Your task to perform on an android device: Set an alarm for 12pm Image 0: 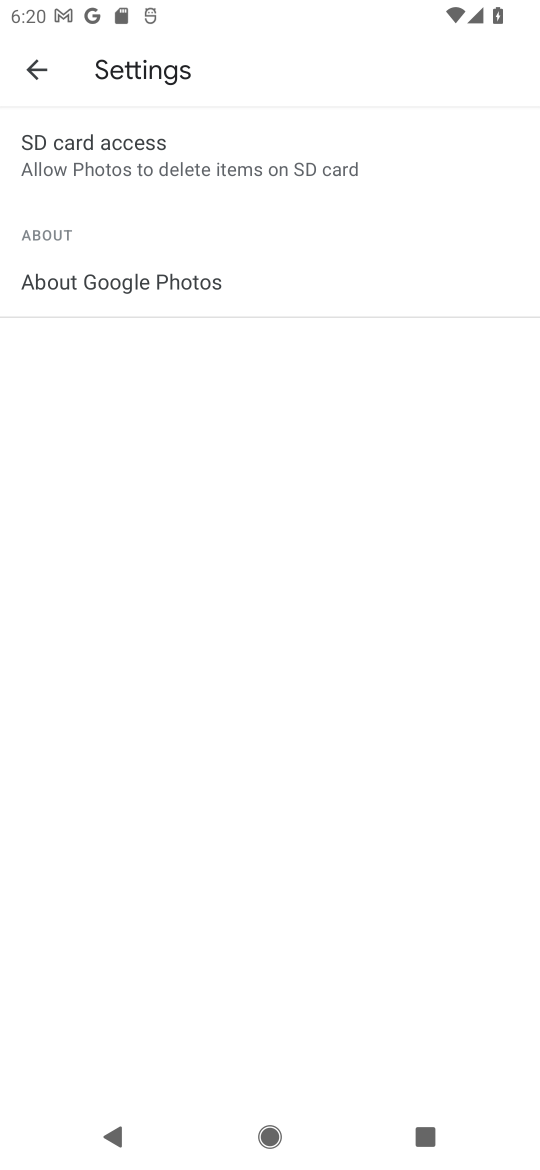
Step 0: press home button
Your task to perform on an android device: Set an alarm for 12pm Image 1: 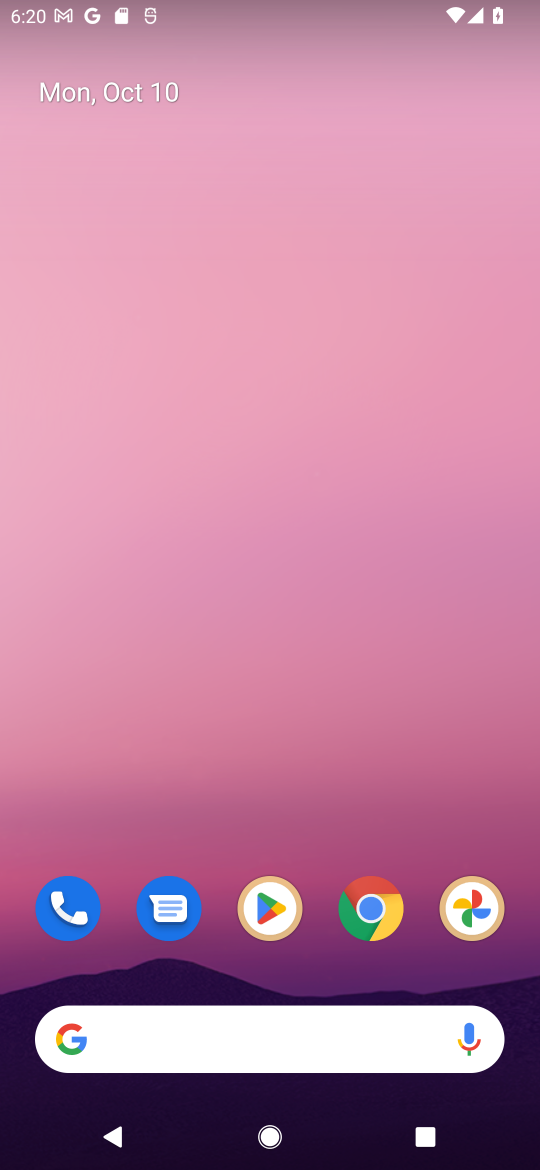
Step 1: drag from (316, 849) to (220, 12)
Your task to perform on an android device: Set an alarm for 12pm Image 2: 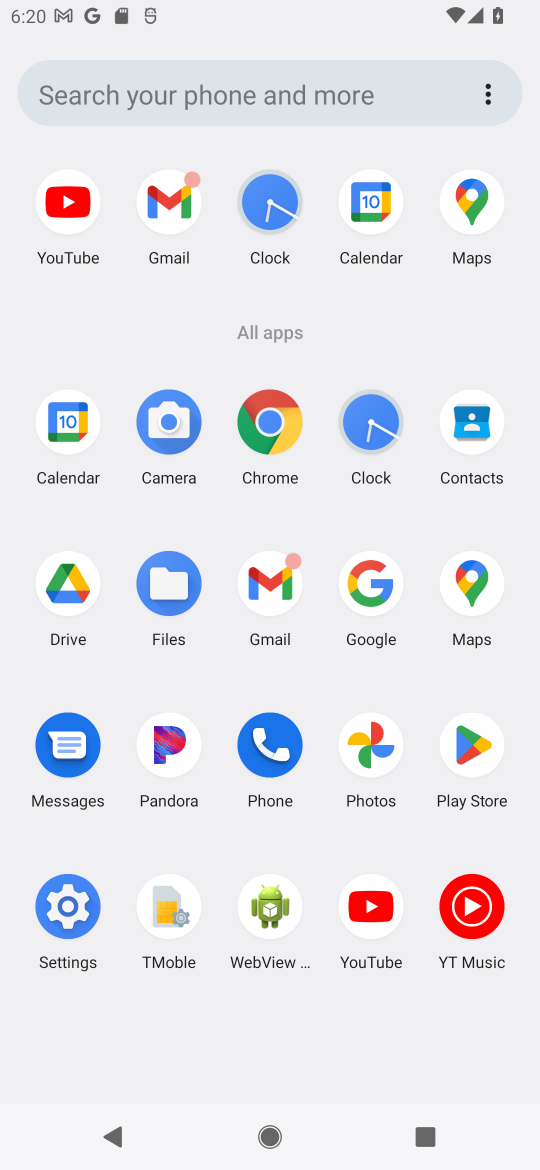
Step 2: click (363, 424)
Your task to perform on an android device: Set an alarm for 12pm Image 3: 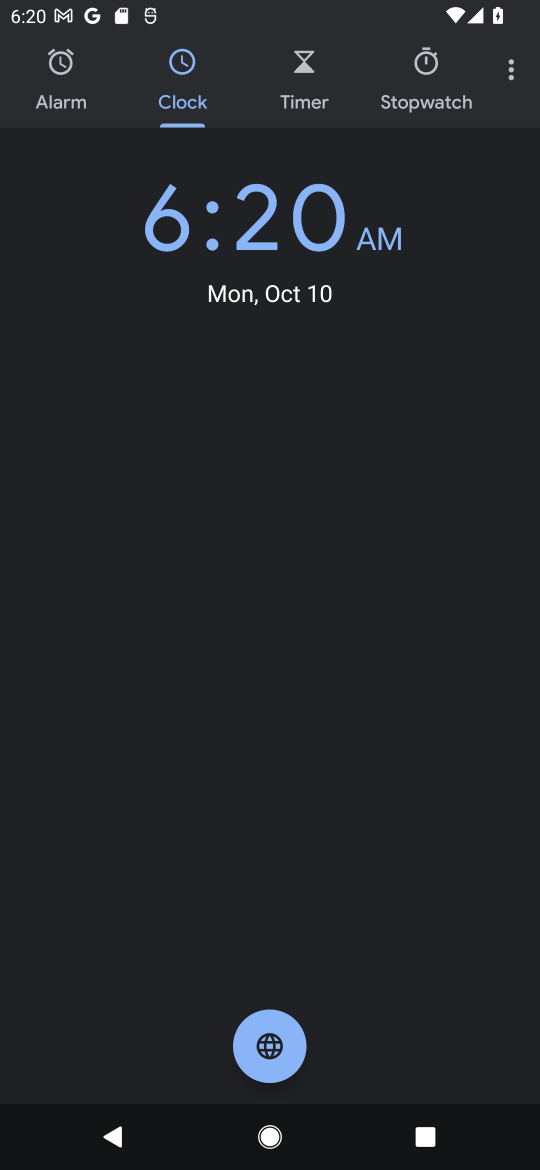
Step 3: click (78, 95)
Your task to perform on an android device: Set an alarm for 12pm Image 4: 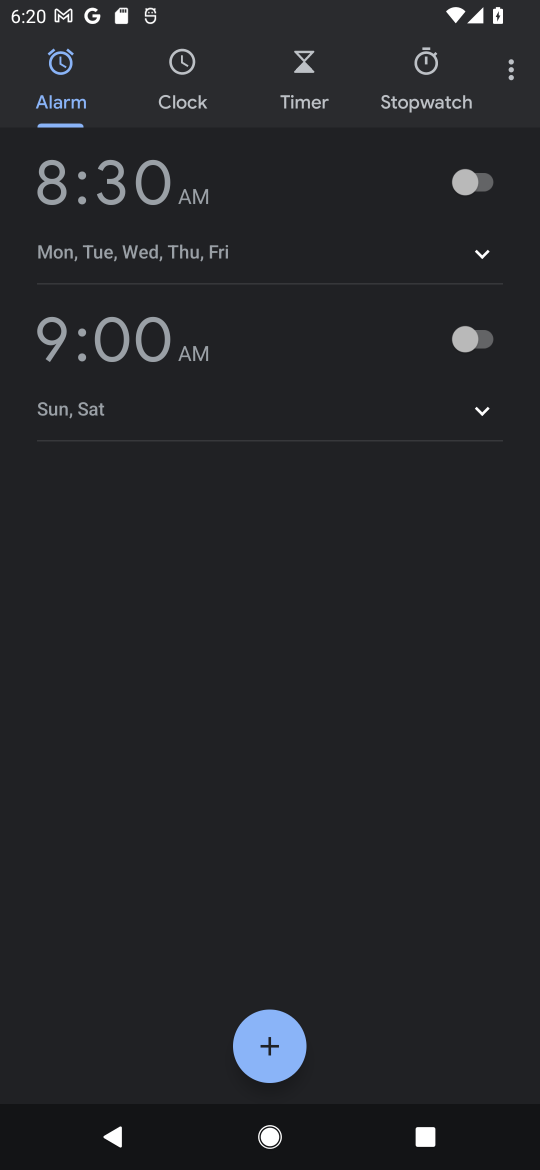
Step 4: click (252, 1060)
Your task to perform on an android device: Set an alarm for 12pm Image 5: 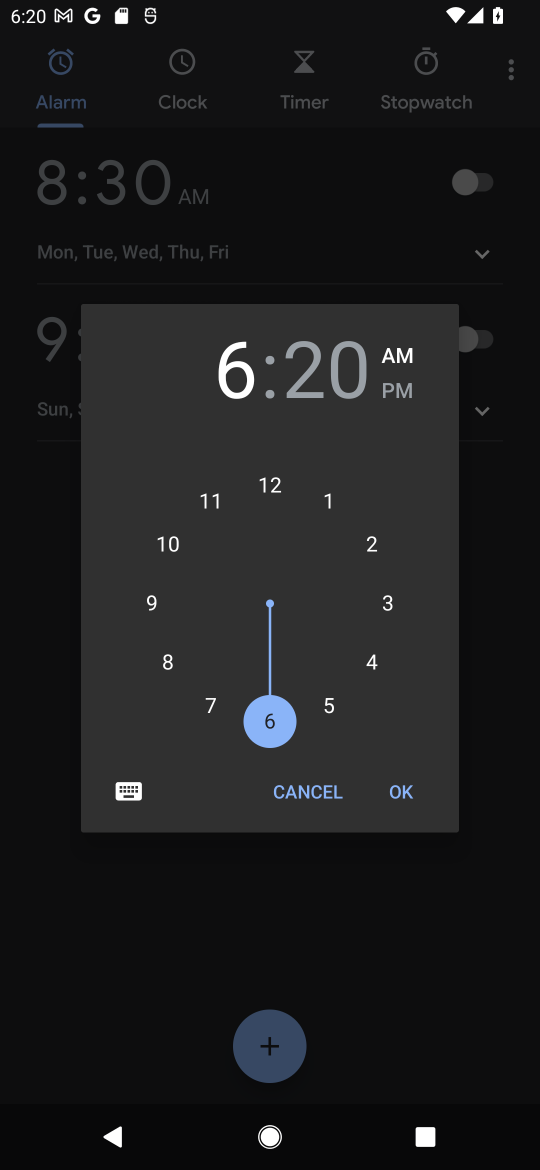
Step 5: click (276, 483)
Your task to perform on an android device: Set an alarm for 12pm Image 6: 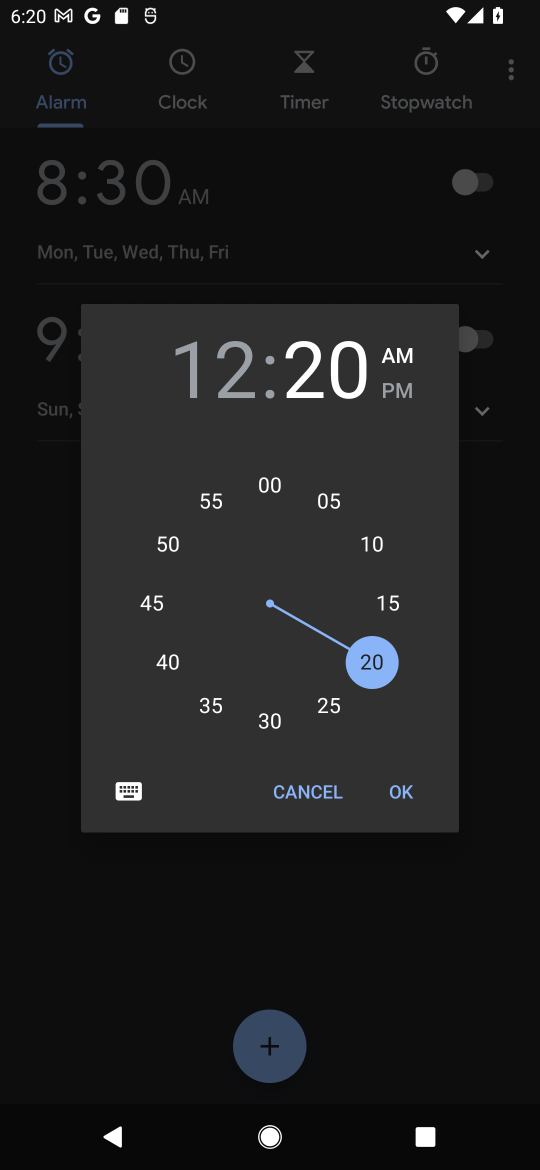
Step 6: click (352, 388)
Your task to perform on an android device: Set an alarm for 12pm Image 7: 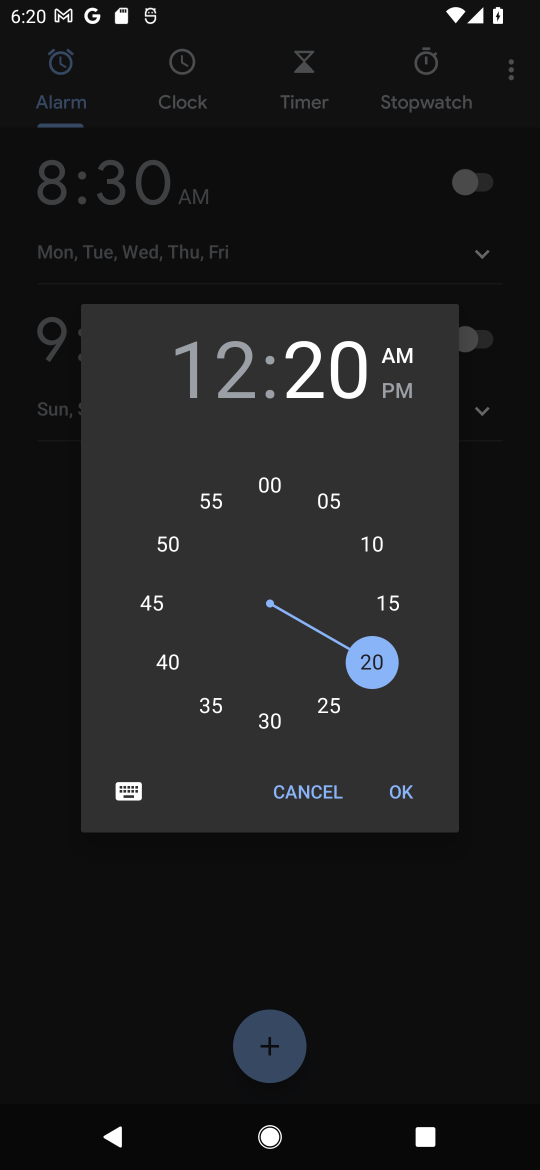
Step 7: click (279, 502)
Your task to perform on an android device: Set an alarm for 12pm Image 8: 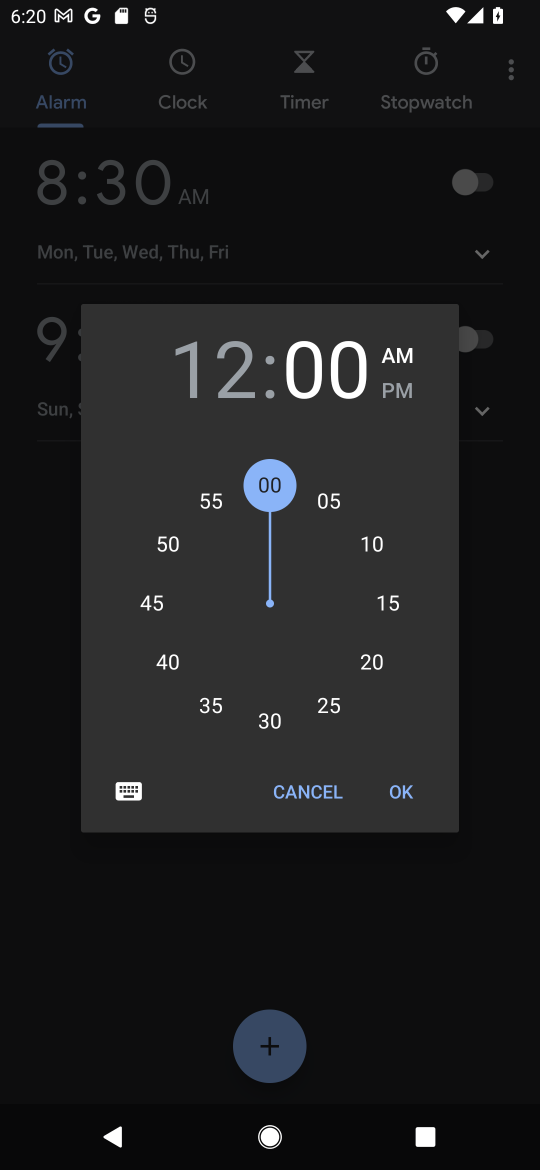
Step 8: click (405, 378)
Your task to perform on an android device: Set an alarm for 12pm Image 9: 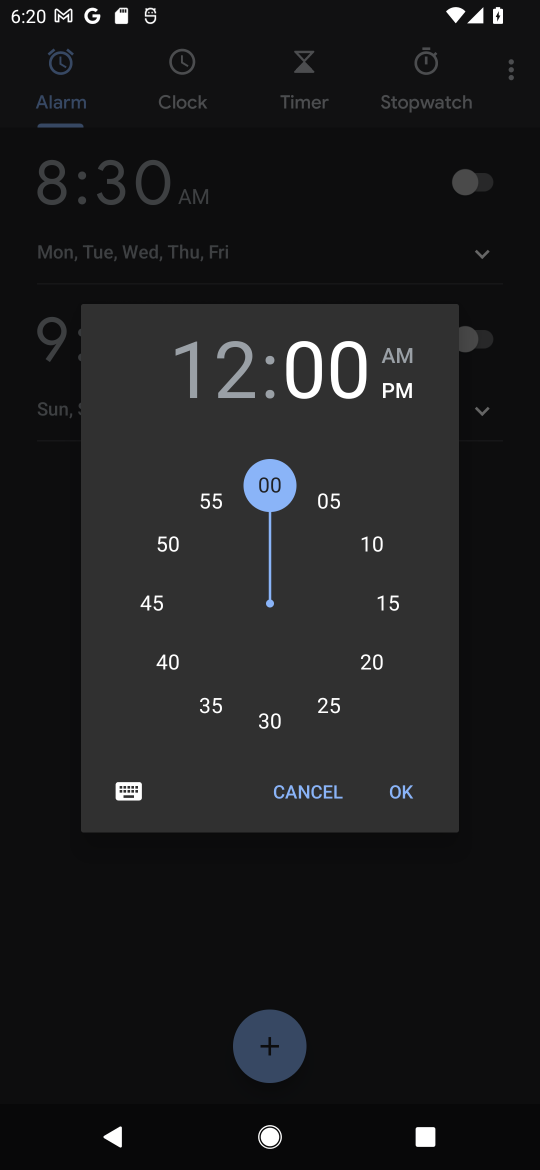
Step 9: click (392, 783)
Your task to perform on an android device: Set an alarm for 12pm Image 10: 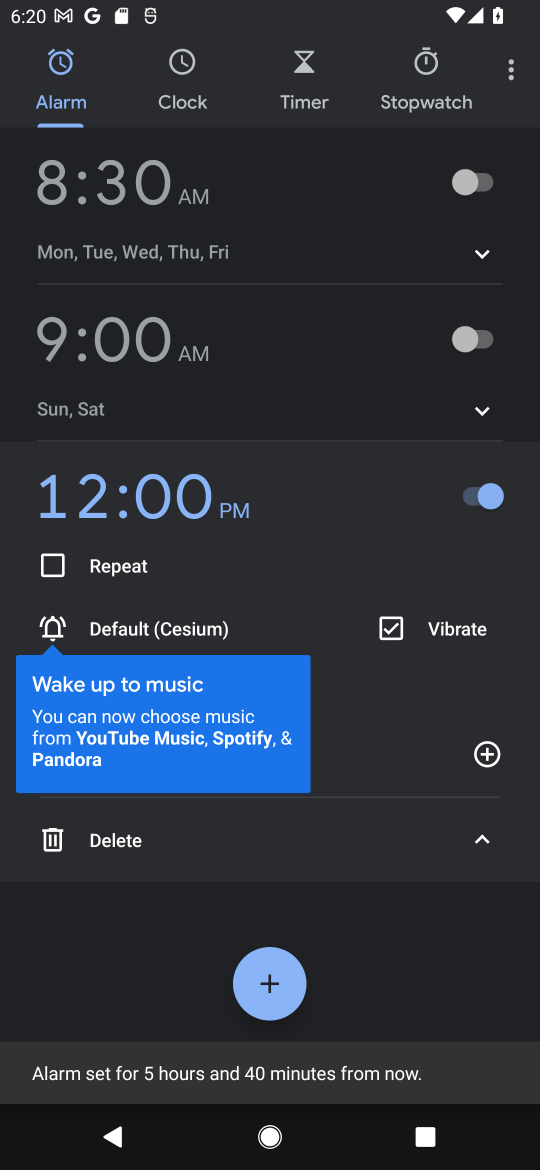
Step 10: task complete